Your task to perform on an android device: open a bookmark in the chrome app Image 0: 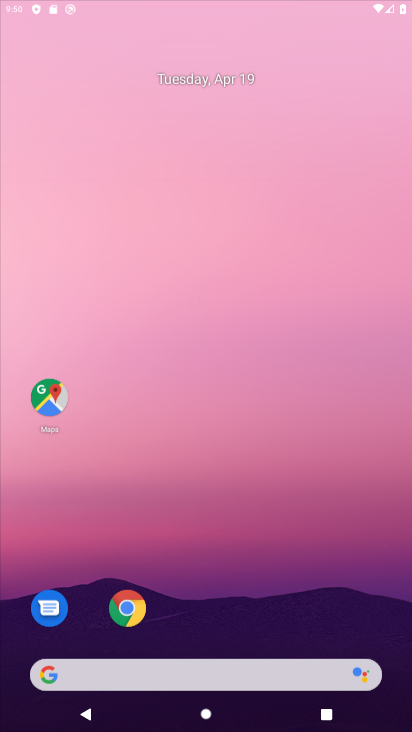
Step 0: click (320, 84)
Your task to perform on an android device: open a bookmark in the chrome app Image 1: 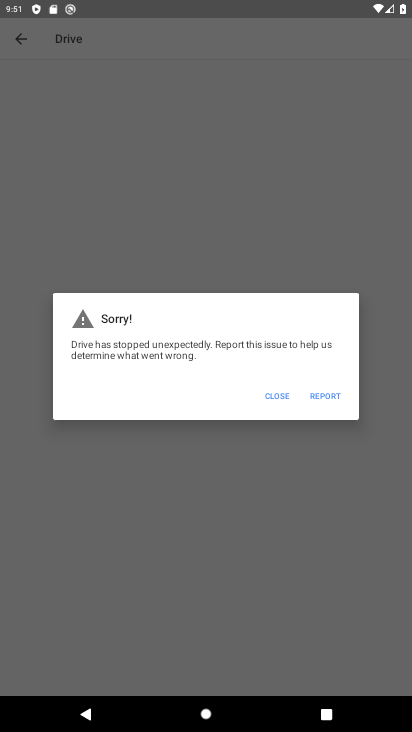
Step 1: press home button
Your task to perform on an android device: open a bookmark in the chrome app Image 2: 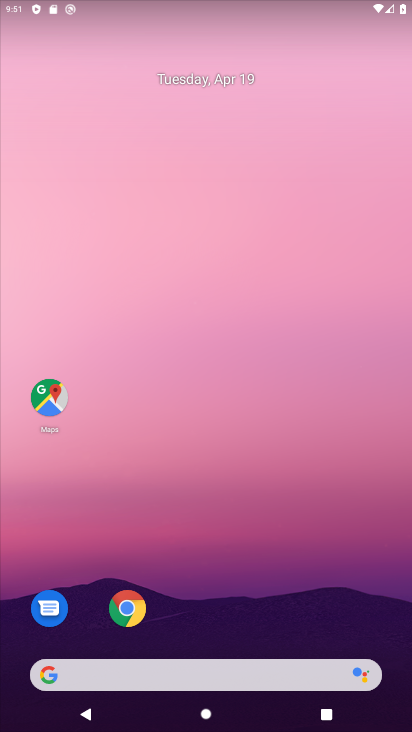
Step 2: click (121, 611)
Your task to perform on an android device: open a bookmark in the chrome app Image 3: 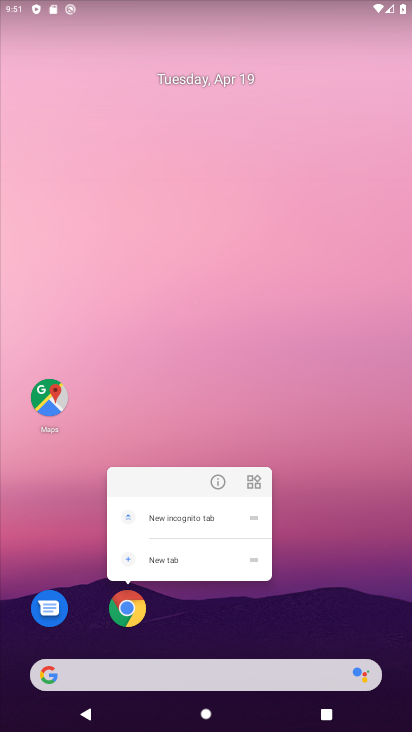
Step 3: click (121, 611)
Your task to perform on an android device: open a bookmark in the chrome app Image 4: 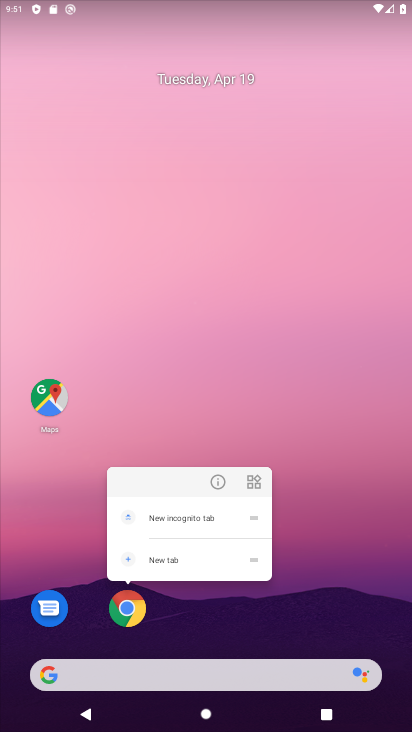
Step 4: click (121, 611)
Your task to perform on an android device: open a bookmark in the chrome app Image 5: 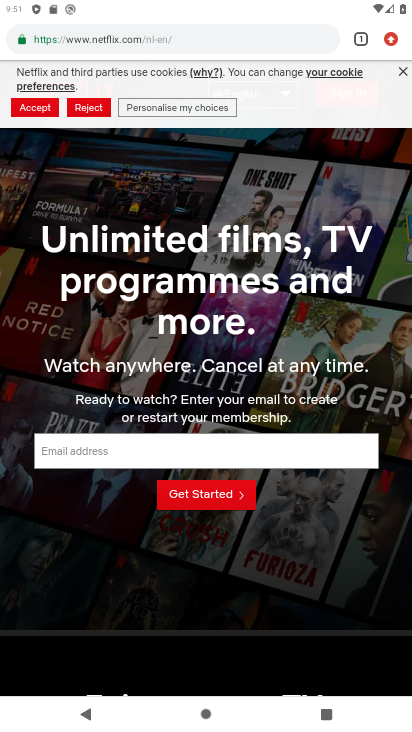
Step 5: click (386, 38)
Your task to perform on an android device: open a bookmark in the chrome app Image 6: 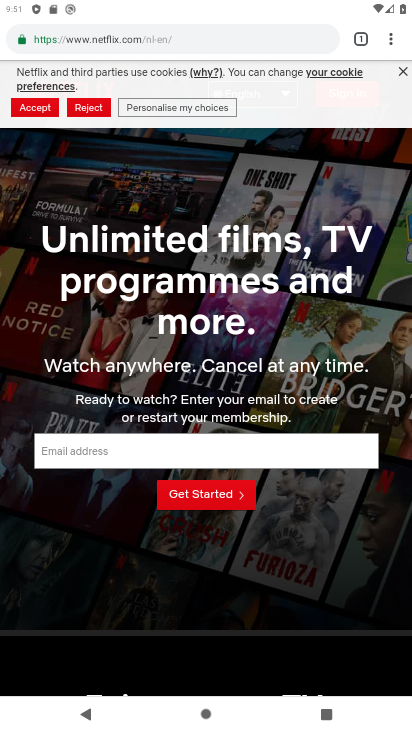
Step 6: click (391, 33)
Your task to perform on an android device: open a bookmark in the chrome app Image 7: 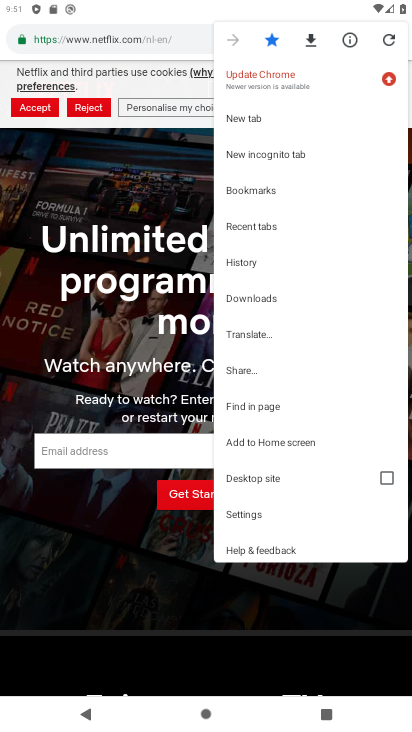
Step 7: click (243, 190)
Your task to perform on an android device: open a bookmark in the chrome app Image 8: 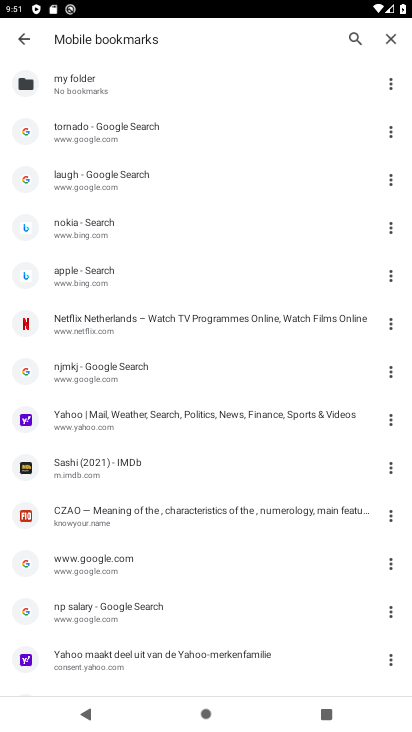
Step 8: click (70, 316)
Your task to perform on an android device: open a bookmark in the chrome app Image 9: 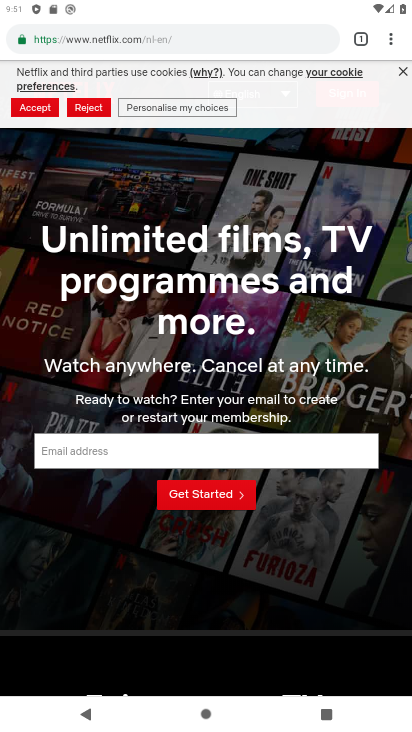
Step 9: task complete